Your task to perform on an android device: Do I have any events tomorrow? Image 0: 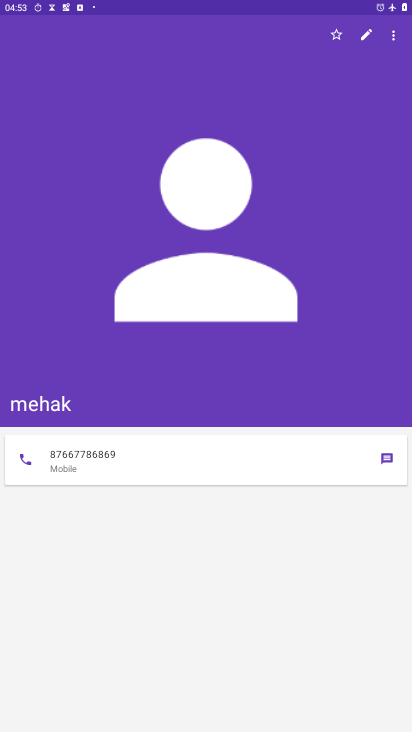
Step 0: press home button
Your task to perform on an android device: Do I have any events tomorrow? Image 1: 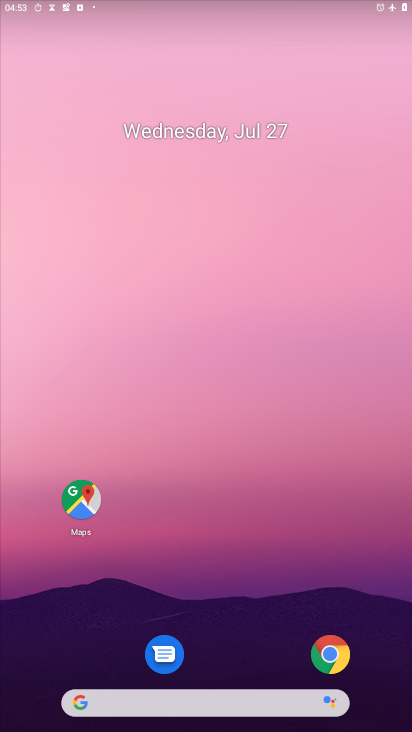
Step 1: drag from (186, 715) to (188, 51)
Your task to perform on an android device: Do I have any events tomorrow? Image 2: 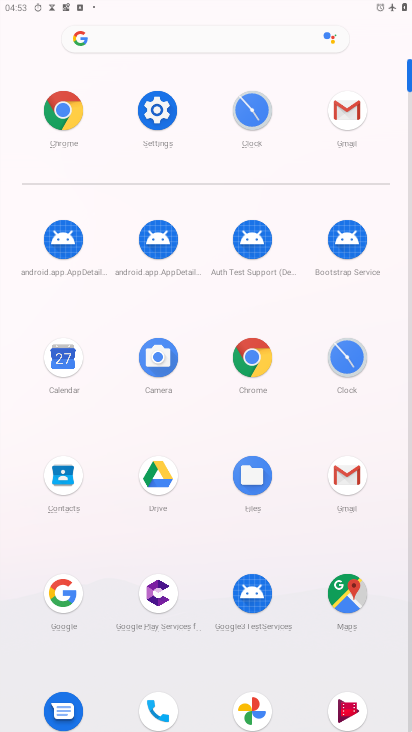
Step 2: click (71, 362)
Your task to perform on an android device: Do I have any events tomorrow? Image 3: 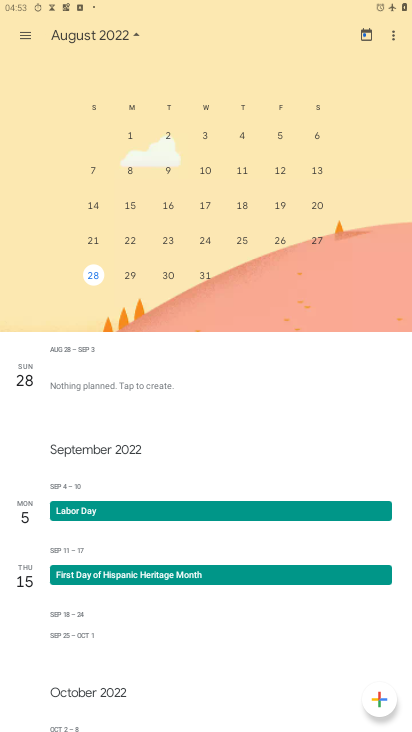
Step 3: click (123, 271)
Your task to perform on an android device: Do I have any events tomorrow? Image 4: 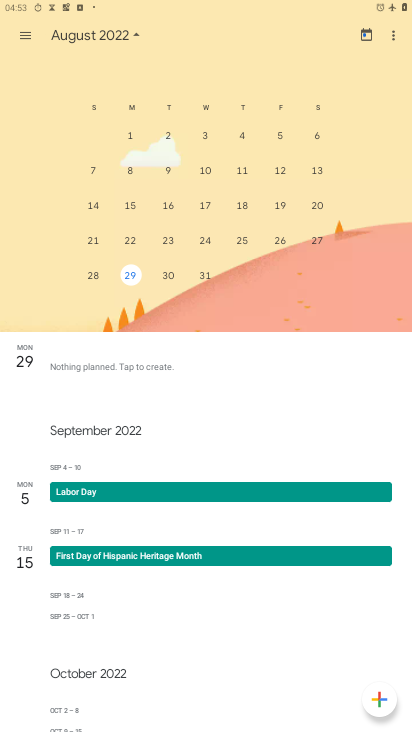
Step 4: task complete